Your task to perform on an android device: Open the map Image 0: 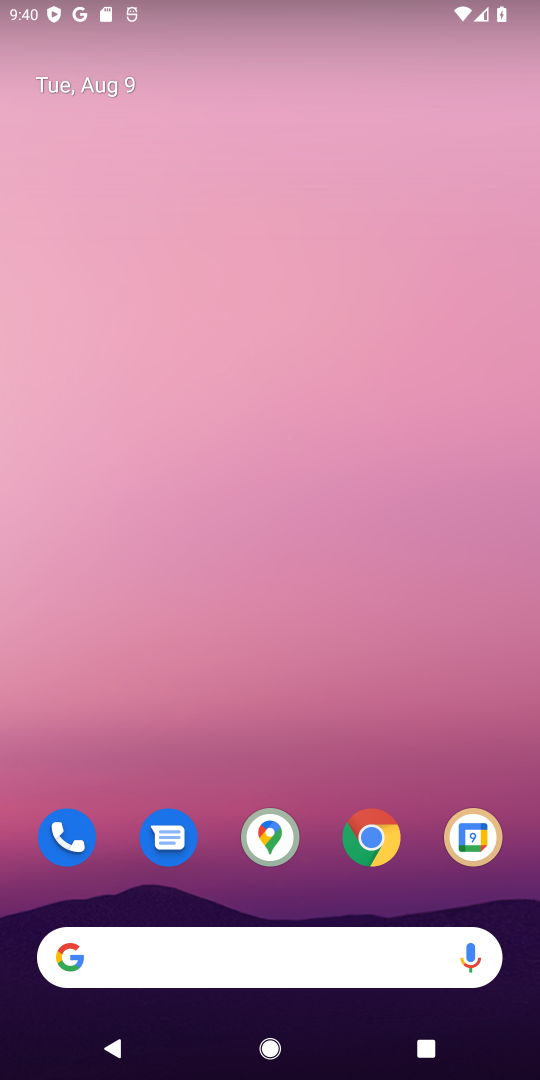
Step 0: drag from (320, 910) to (313, 269)
Your task to perform on an android device: Open the map Image 1: 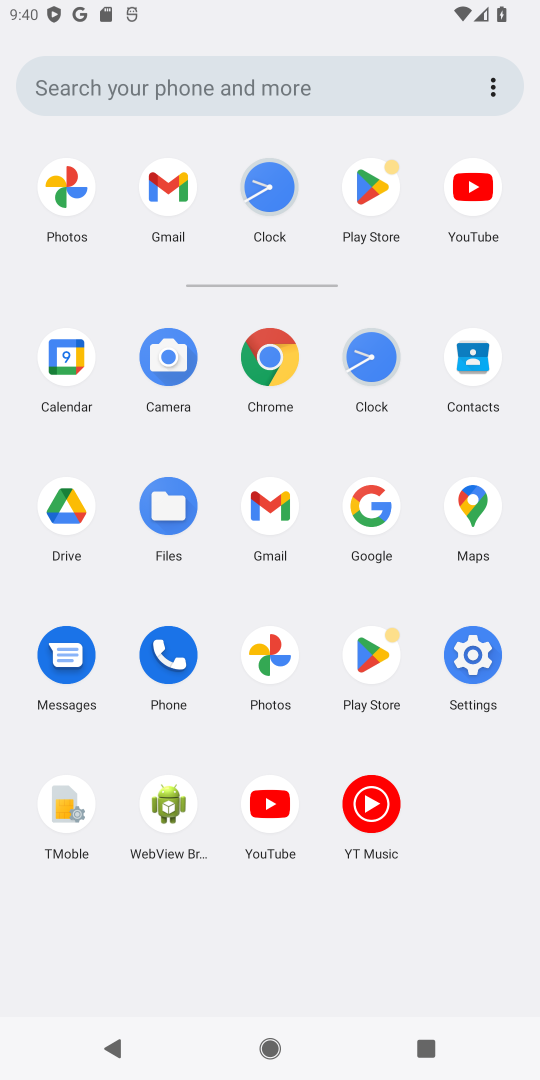
Step 1: click (476, 500)
Your task to perform on an android device: Open the map Image 2: 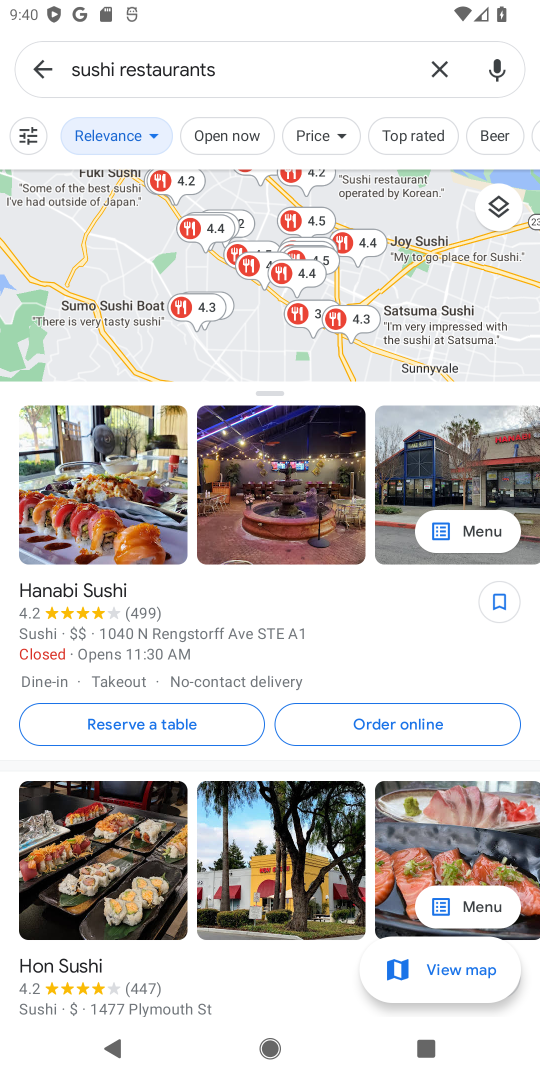
Step 2: task complete